Your task to perform on an android device: Open Google Maps Image 0: 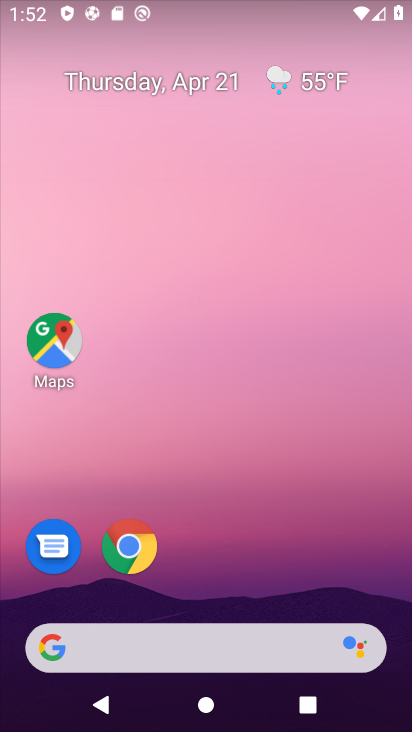
Step 0: click (57, 355)
Your task to perform on an android device: Open Google Maps Image 1: 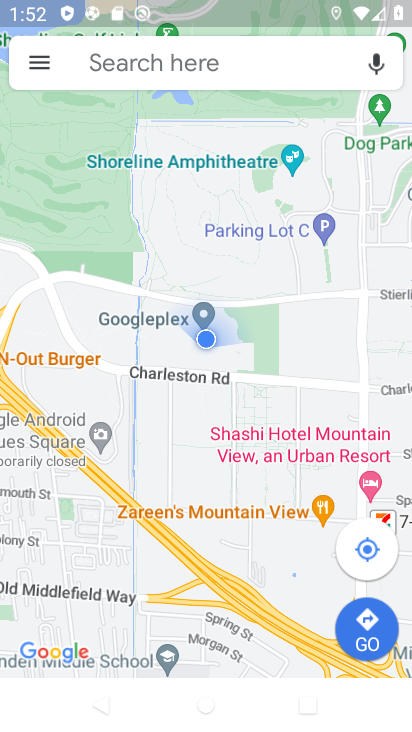
Step 1: task complete